Your task to perform on an android device: visit the assistant section in the google photos Image 0: 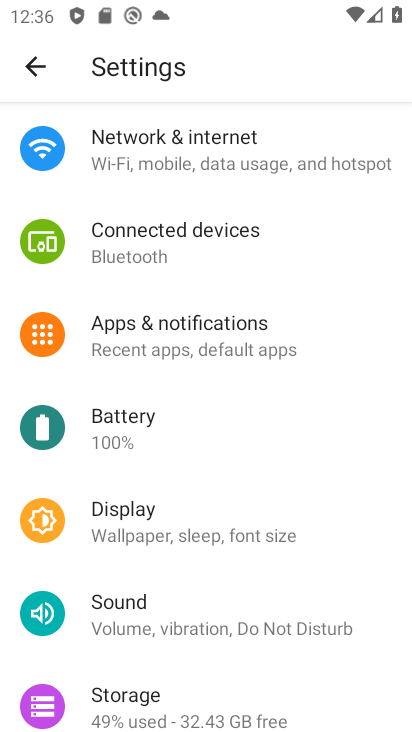
Step 0: press home button
Your task to perform on an android device: visit the assistant section in the google photos Image 1: 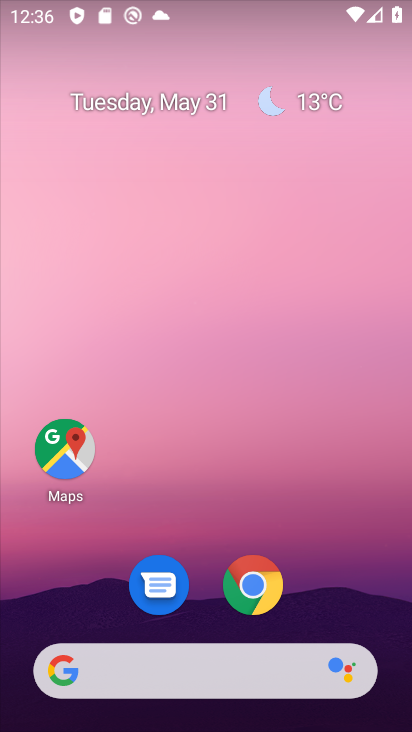
Step 1: drag from (207, 533) to (267, 32)
Your task to perform on an android device: visit the assistant section in the google photos Image 2: 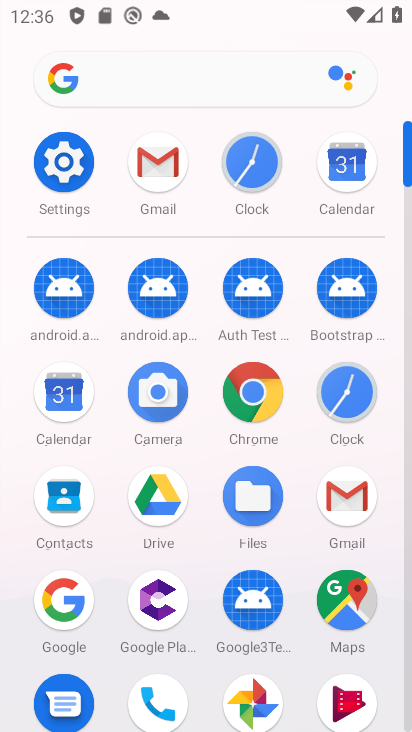
Step 2: drag from (294, 458) to (312, 131)
Your task to perform on an android device: visit the assistant section in the google photos Image 3: 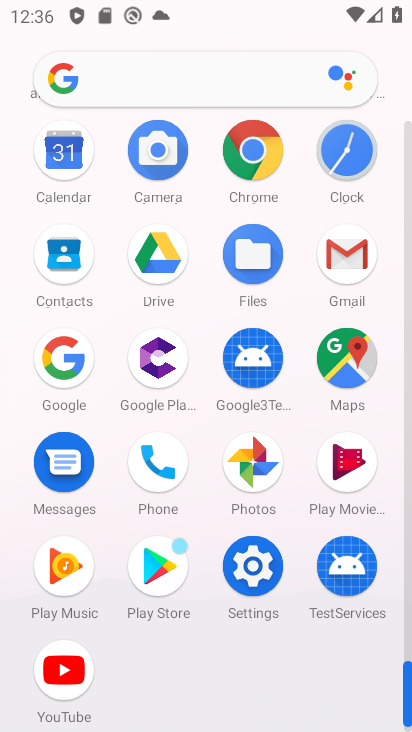
Step 3: click (256, 456)
Your task to perform on an android device: visit the assistant section in the google photos Image 4: 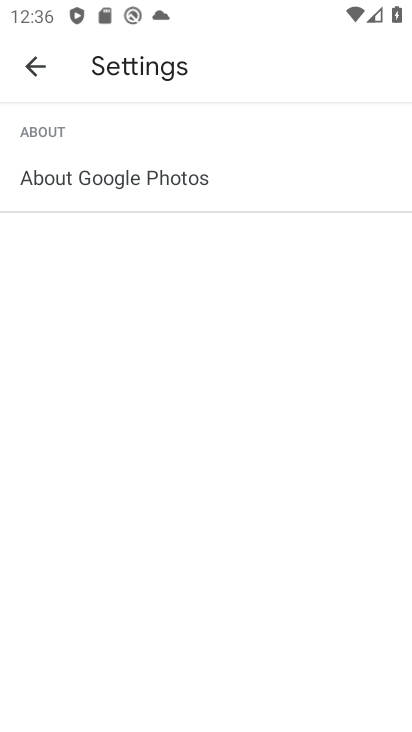
Step 4: click (40, 64)
Your task to perform on an android device: visit the assistant section in the google photos Image 5: 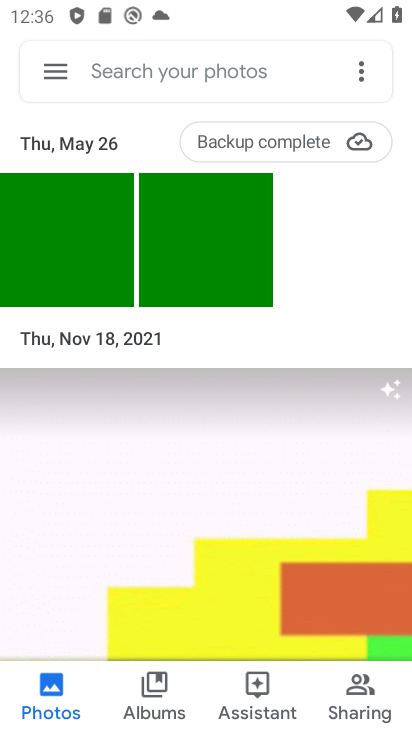
Step 5: click (262, 698)
Your task to perform on an android device: visit the assistant section in the google photos Image 6: 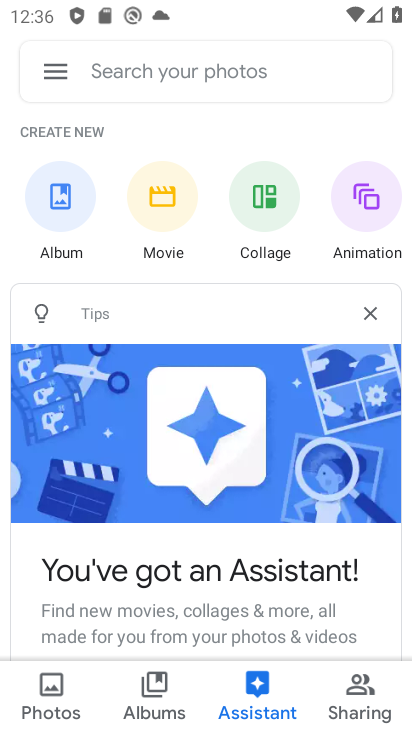
Step 6: task complete